Your task to perform on an android device: Search for a new lipgloss Image 0: 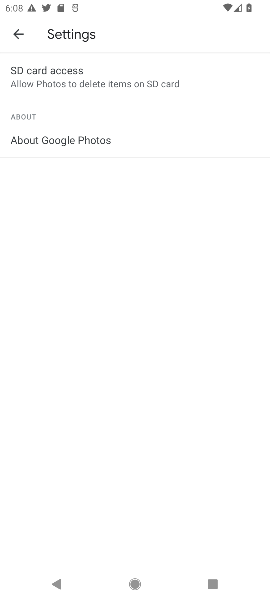
Step 0: press home button
Your task to perform on an android device: Search for a new lipgloss Image 1: 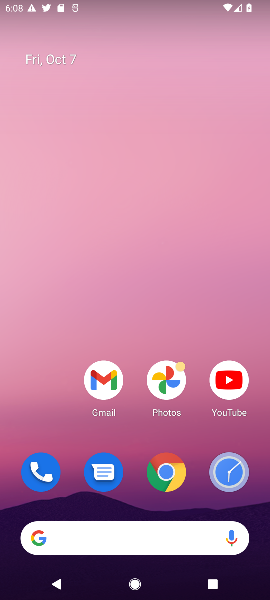
Step 1: click (168, 467)
Your task to perform on an android device: Search for a new lipgloss Image 2: 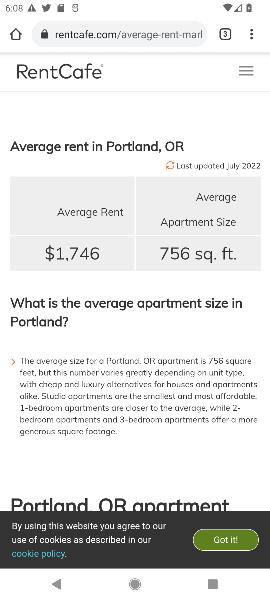
Step 2: click (162, 37)
Your task to perform on an android device: Search for a new lipgloss Image 3: 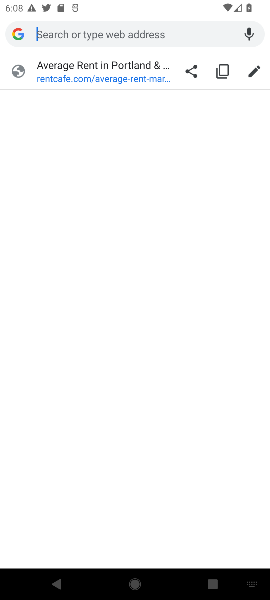
Step 3: type "new lipgloss"
Your task to perform on an android device: Search for a new lipgloss Image 4: 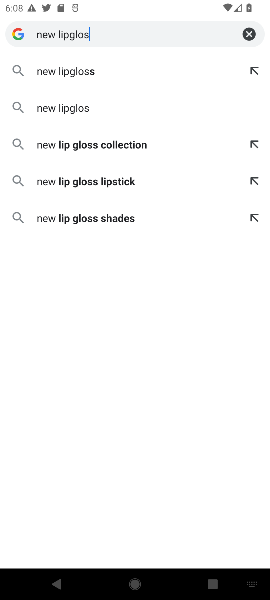
Step 4: type ""
Your task to perform on an android device: Search for a new lipgloss Image 5: 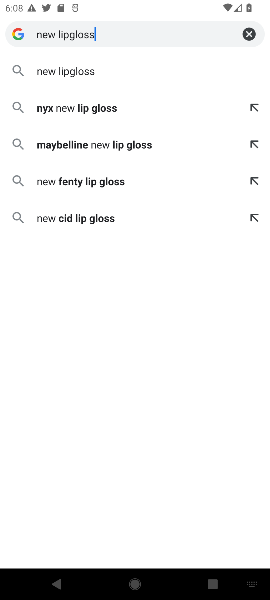
Step 5: click (68, 73)
Your task to perform on an android device: Search for a new lipgloss Image 6: 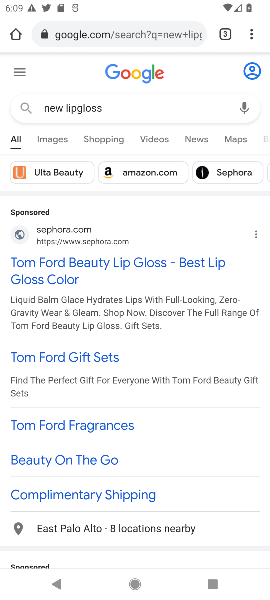
Step 6: task complete